Your task to perform on an android device: Go to Google Image 0: 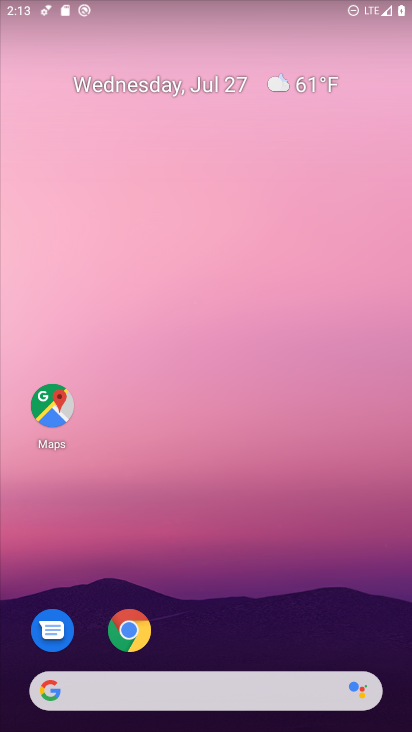
Step 0: drag from (263, 583) to (263, 148)
Your task to perform on an android device: Go to Google Image 1: 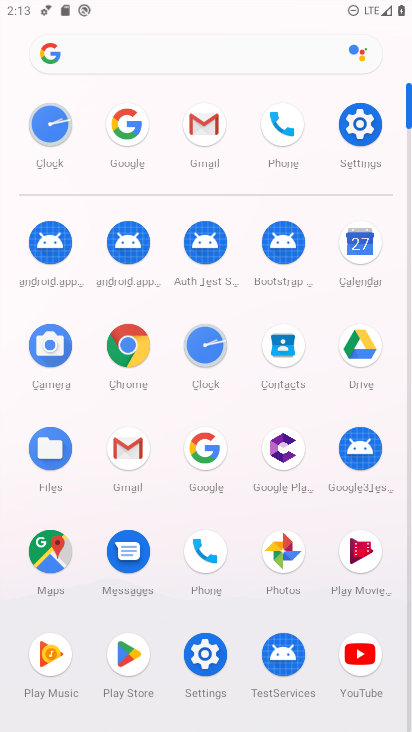
Step 1: click (200, 446)
Your task to perform on an android device: Go to Google Image 2: 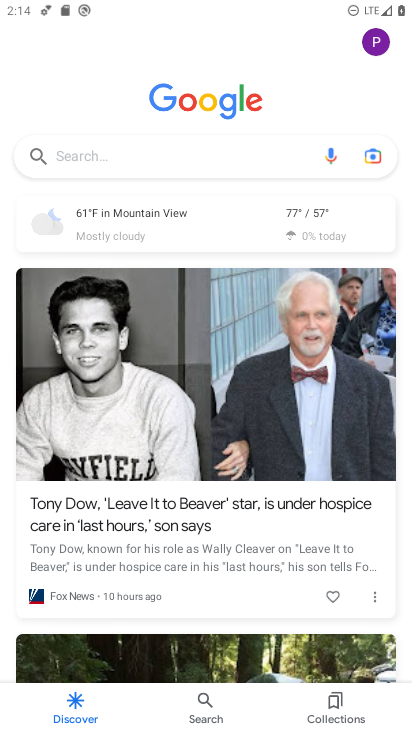
Step 2: task complete